Your task to perform on an android device: clear all cookies in the chrome app Image 0: 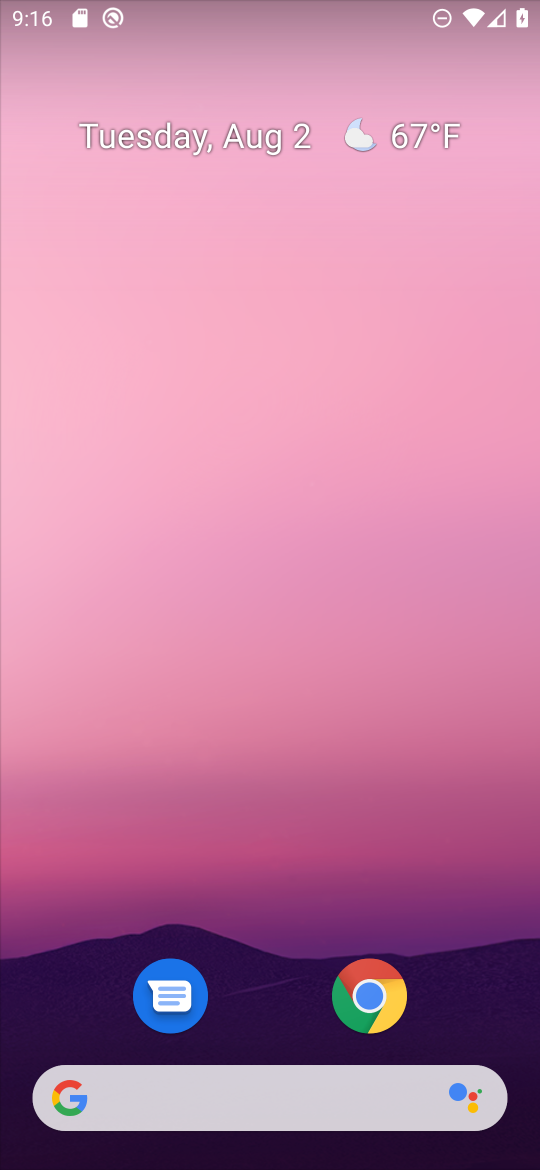
Step 0: drag from (270, 970) to (221, 117)
Your task to perform on an android device: clear all cookies in the chrome app Image 1: 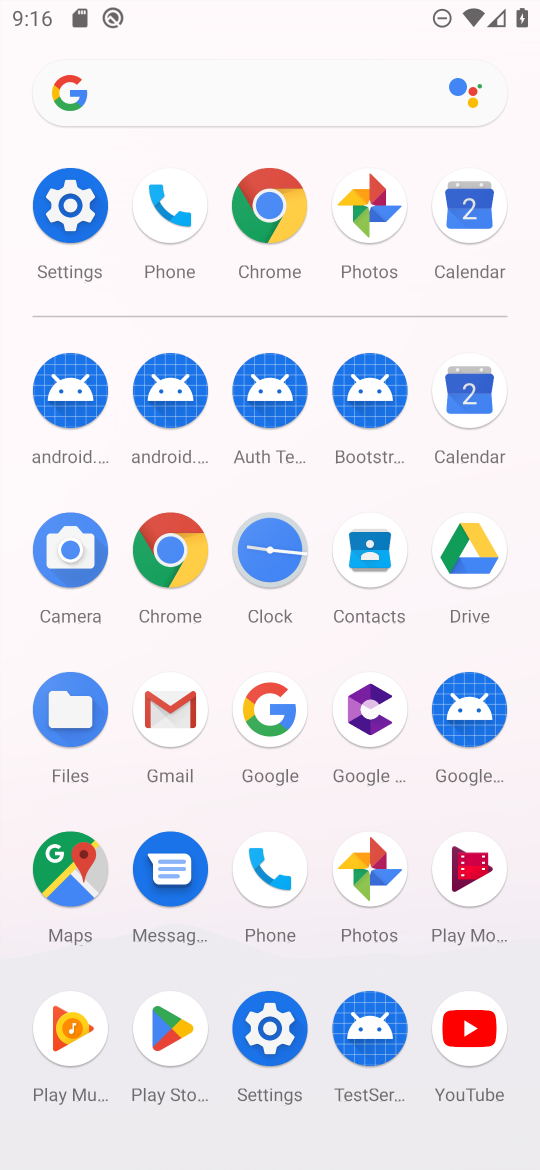
Step 1: click (271, 191)
Your task to perform on an android device: clear all cookies in the chrome app Image 2: 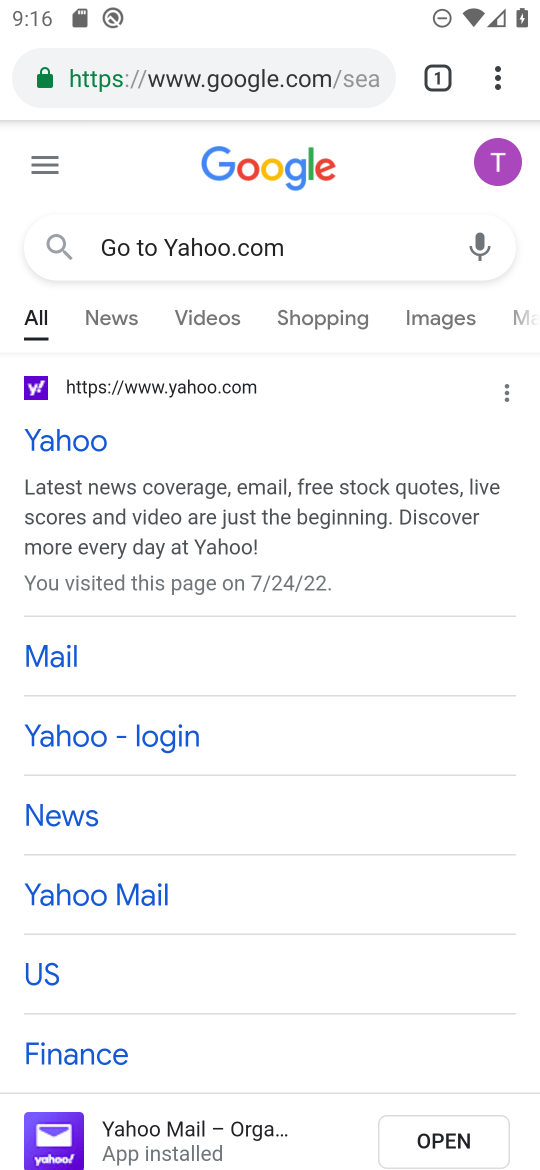
Step 2: drag from (493, 66) to (258, 944)
Your task to perform on an android device: clear all cookies in the chrome app Image 3: 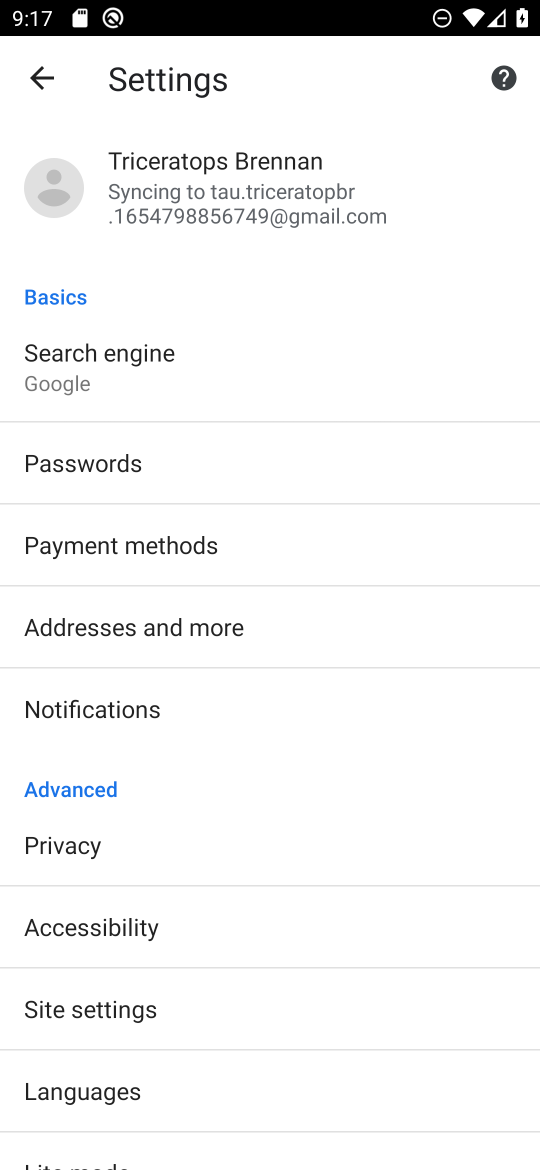
Step 3: click (69, 840)
Your task to perform on an android device: clear all cookies in the chrome app Image 4: 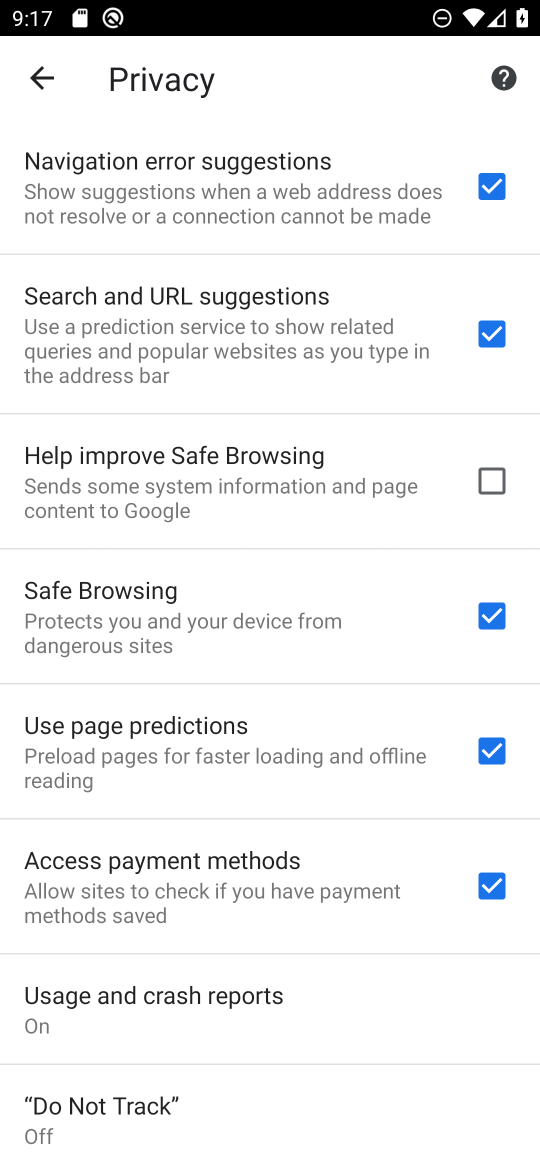
Step 4: drag from (227, 965) to (234, 100)
Your task to perform on an android device: clear all cookies in the chrome app Image 5: 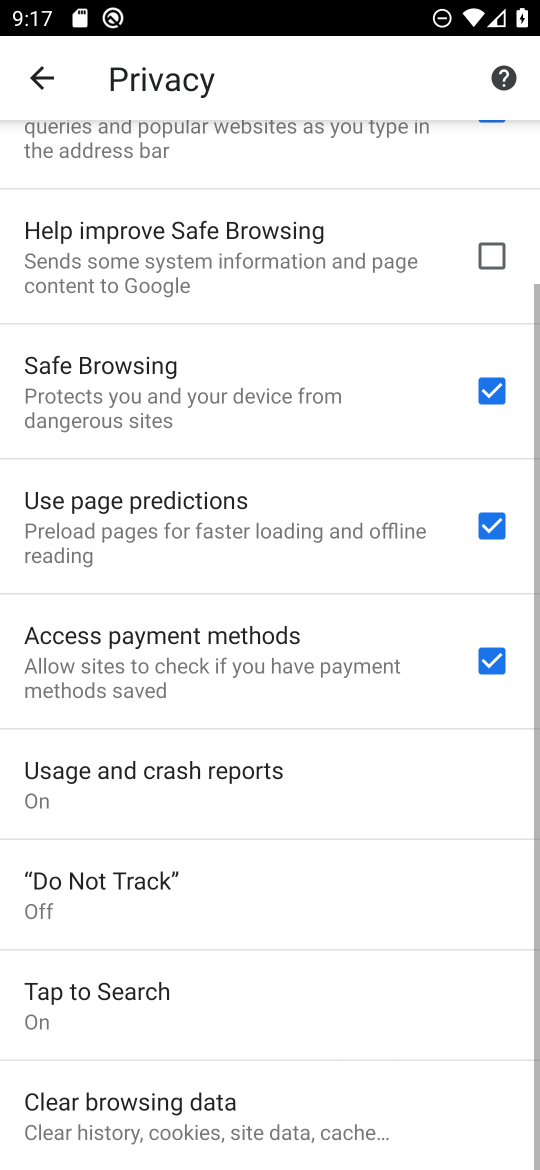
Step 5: click (72, 1106)
Your task to perform on an android device: clear all cookies in the chrome app Image 6: 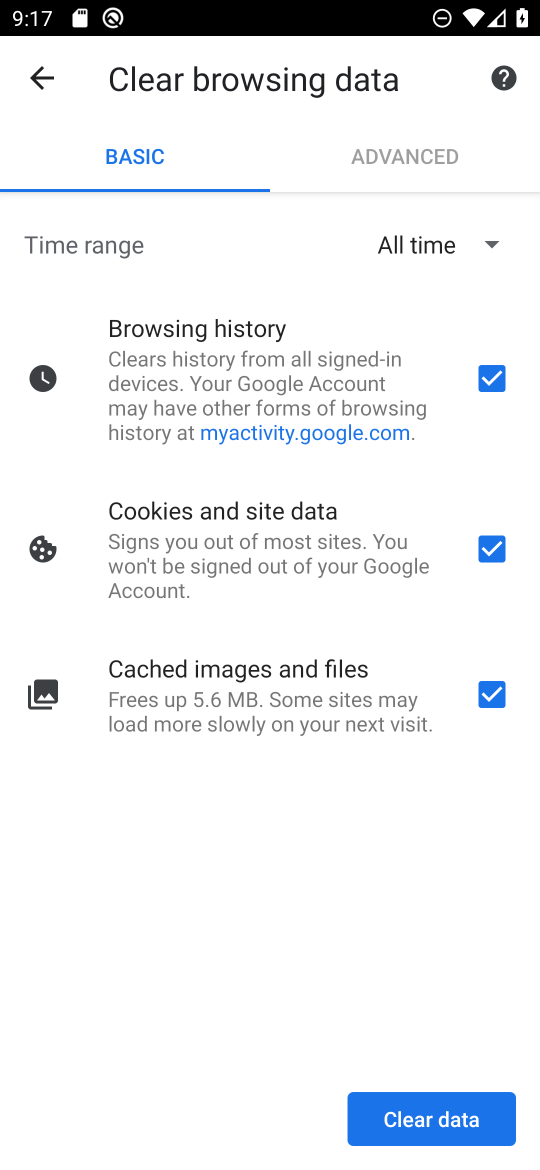
Step 6: click (464, 1096)
Your task to perform on an android device: clear all cookies in the chrome app Image 7: 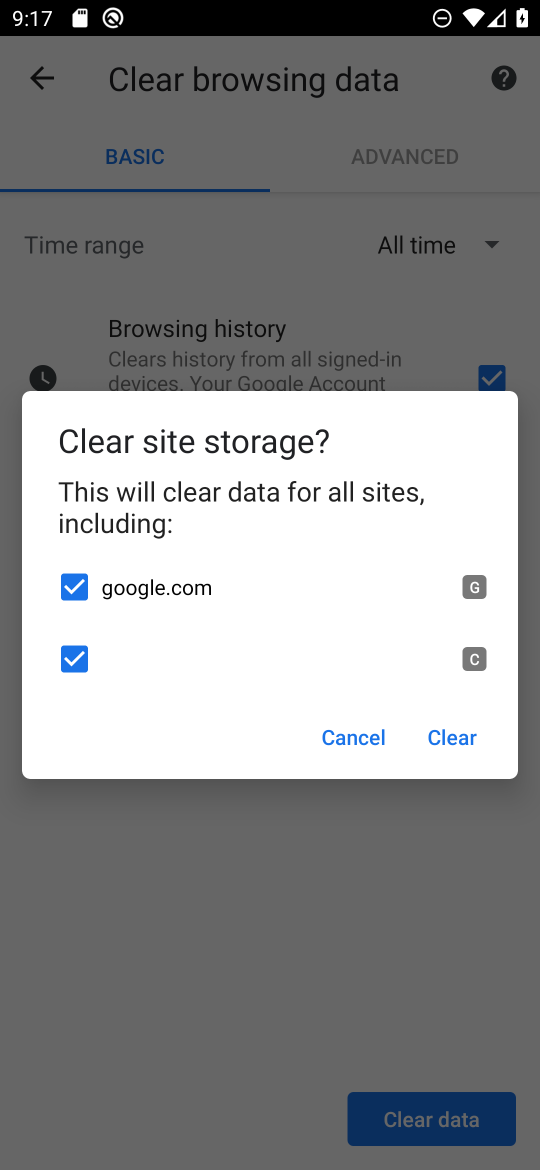
Step 7: click (452, 732)
Your task to perform on an android device: clear all cookies in the chrome app Image 8: 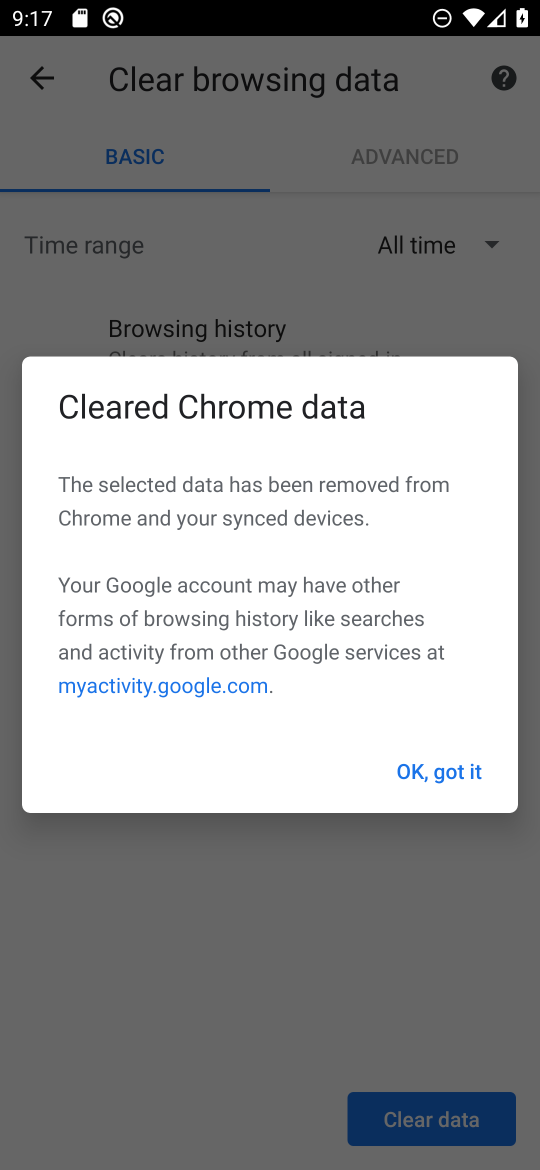
Step 8: click (469, 755)
Your task to perform on an android device: clear all cookies in the chrome app Image 9: 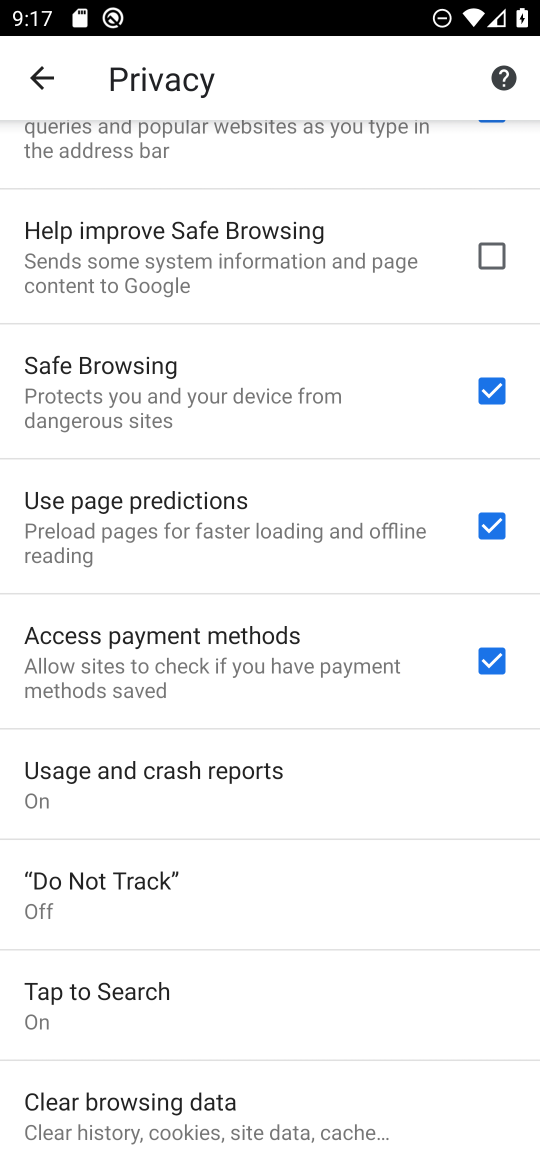
Step 9: task complete